Your task to perform on an android device: refresh tabs in the chrome app Image 0: 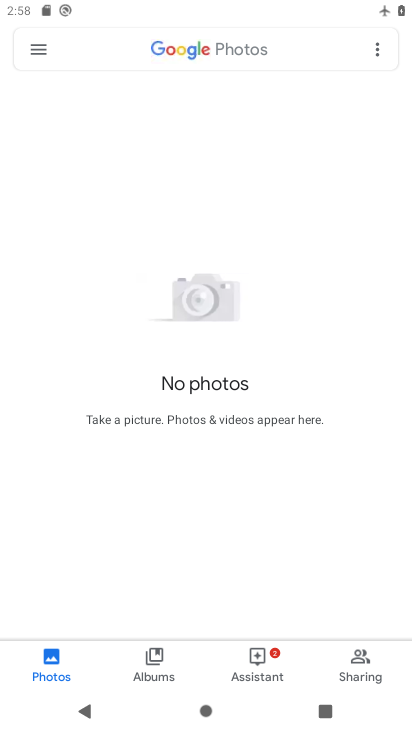
Step 0: press home button
Your task to perform on an android device: refresh tabs in the chrome app Image 1: 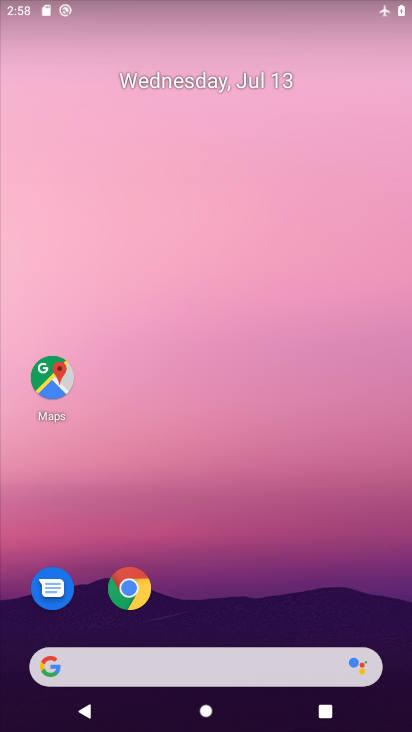
Step 1: drag from (182, 633) to (156, 130)
Your task to perform on an android device: refresh tabs in the chrome app Image 2: 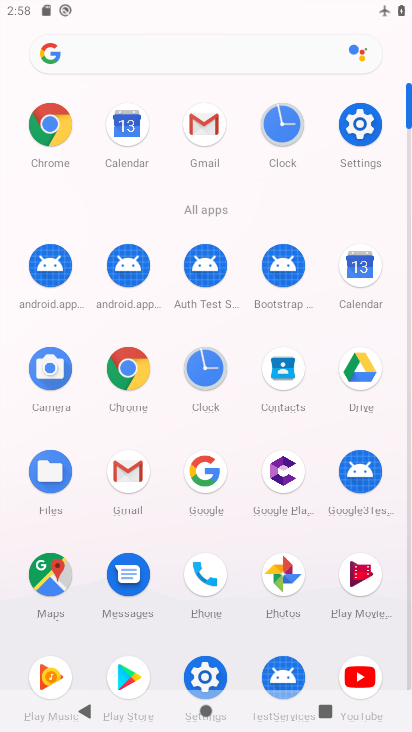
Step 2: click (122, 373)
Your task to perform on an android device: refresh tabs in the chrome app Image 3: 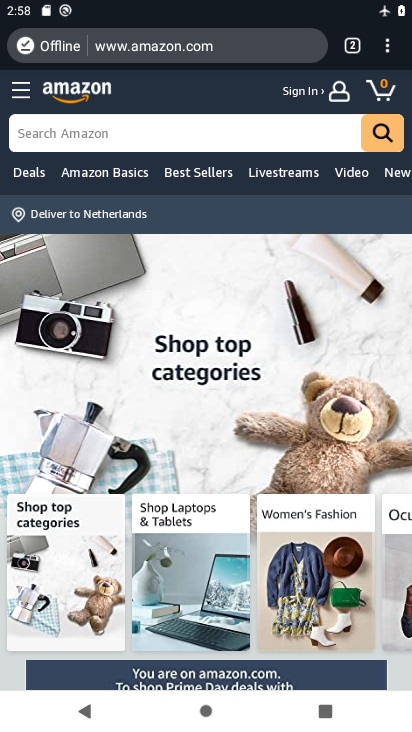
Step 3: click (386, 50)
Your task to perform on an android device: refresh tabs in the chrome app Image 4: 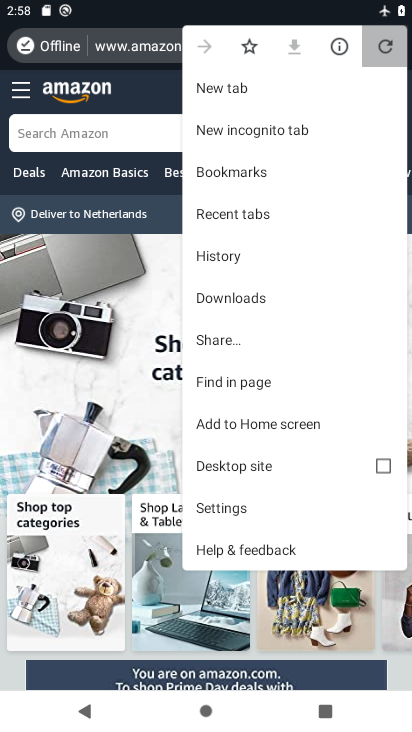
Step 4: click (385, 50)
Your task to perform on an android device: refresh tabs in the chrome app Image 5: 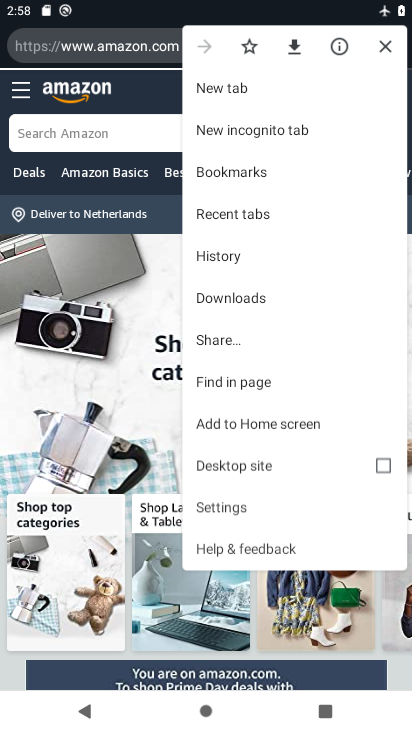
Step 5: task complete